Your task to perform on an android device: Search for flights from Mexico city to Boston Image 0: 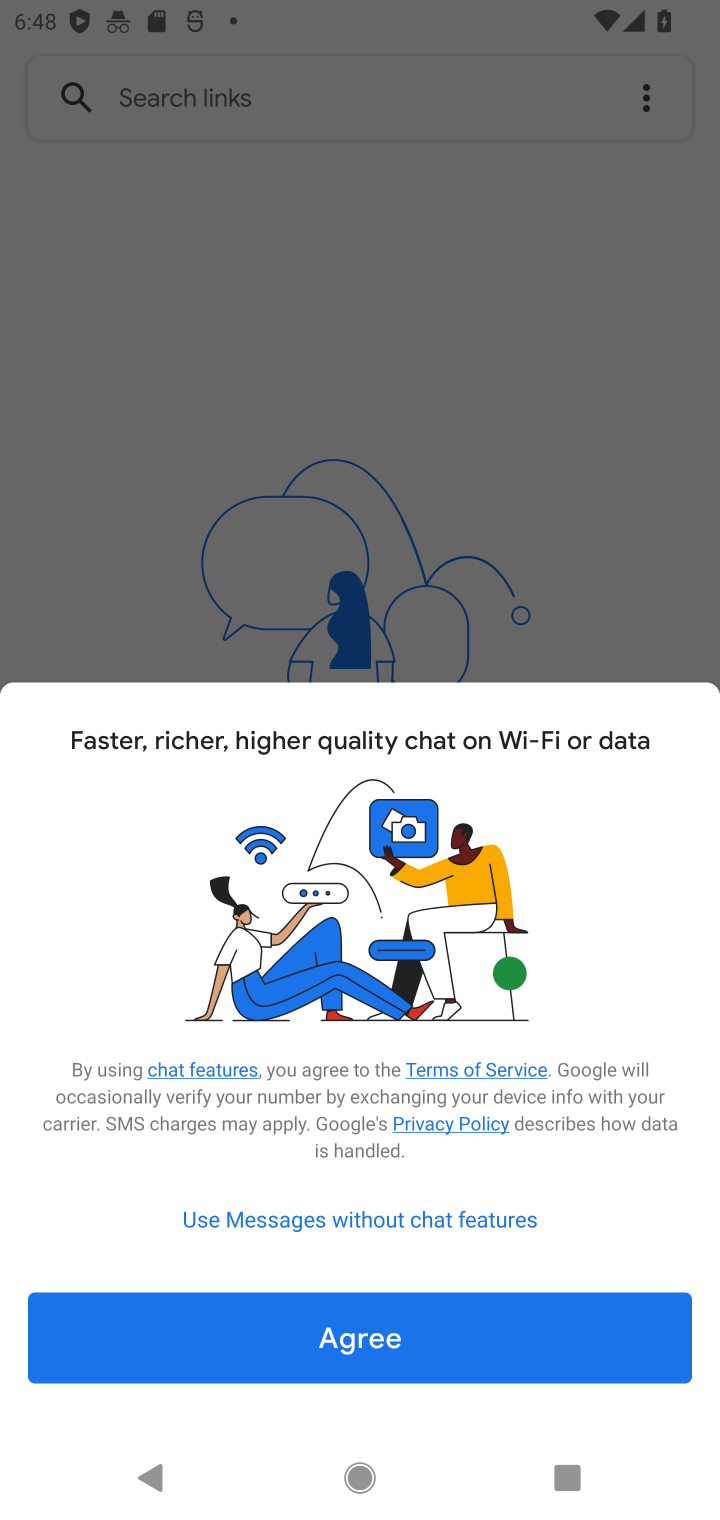
Step 0: press home button
Your task to perform on an android device: Search for flights from Mexico city to Boston Image 1: 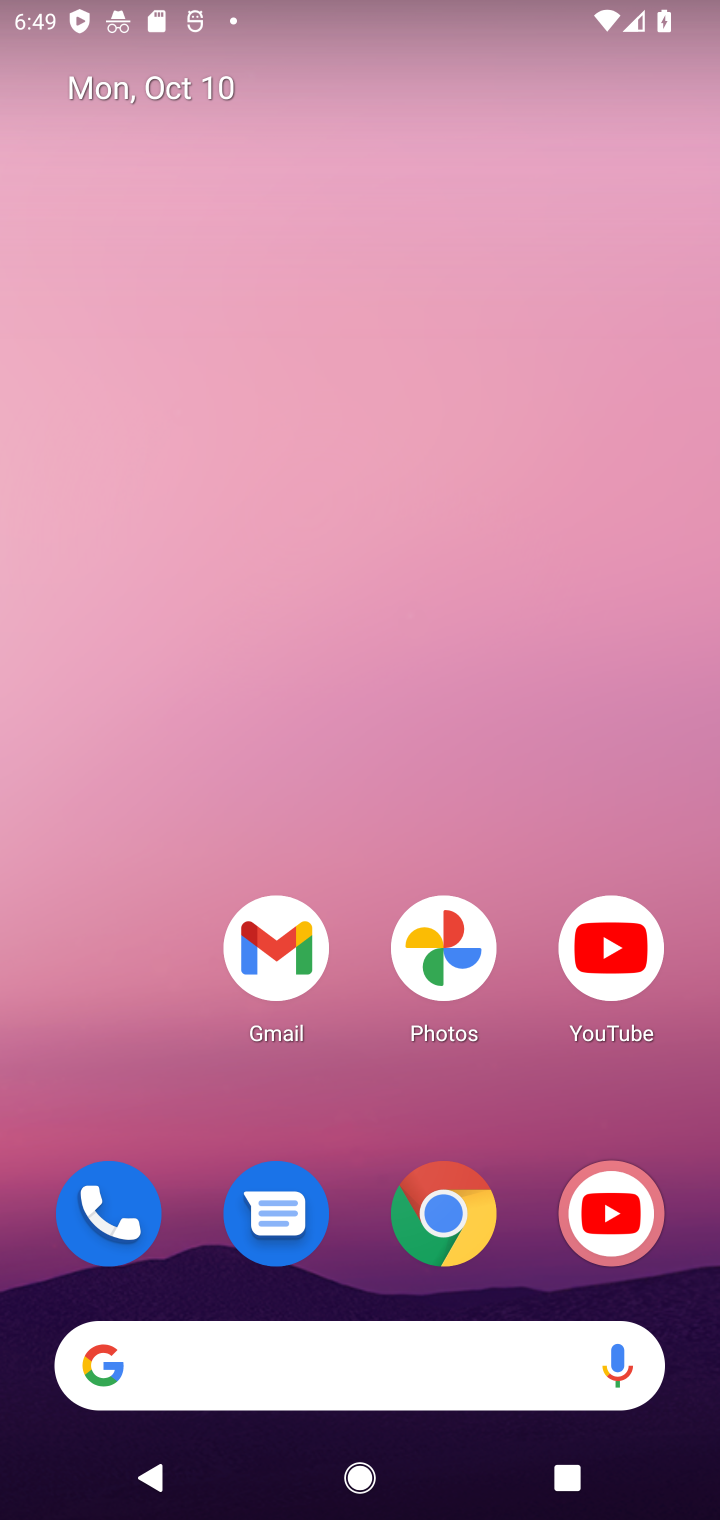
Step 1: click (179, 1385)
Your task to perform on an android device: Search for flights from Mexico city to Boston Image 2: 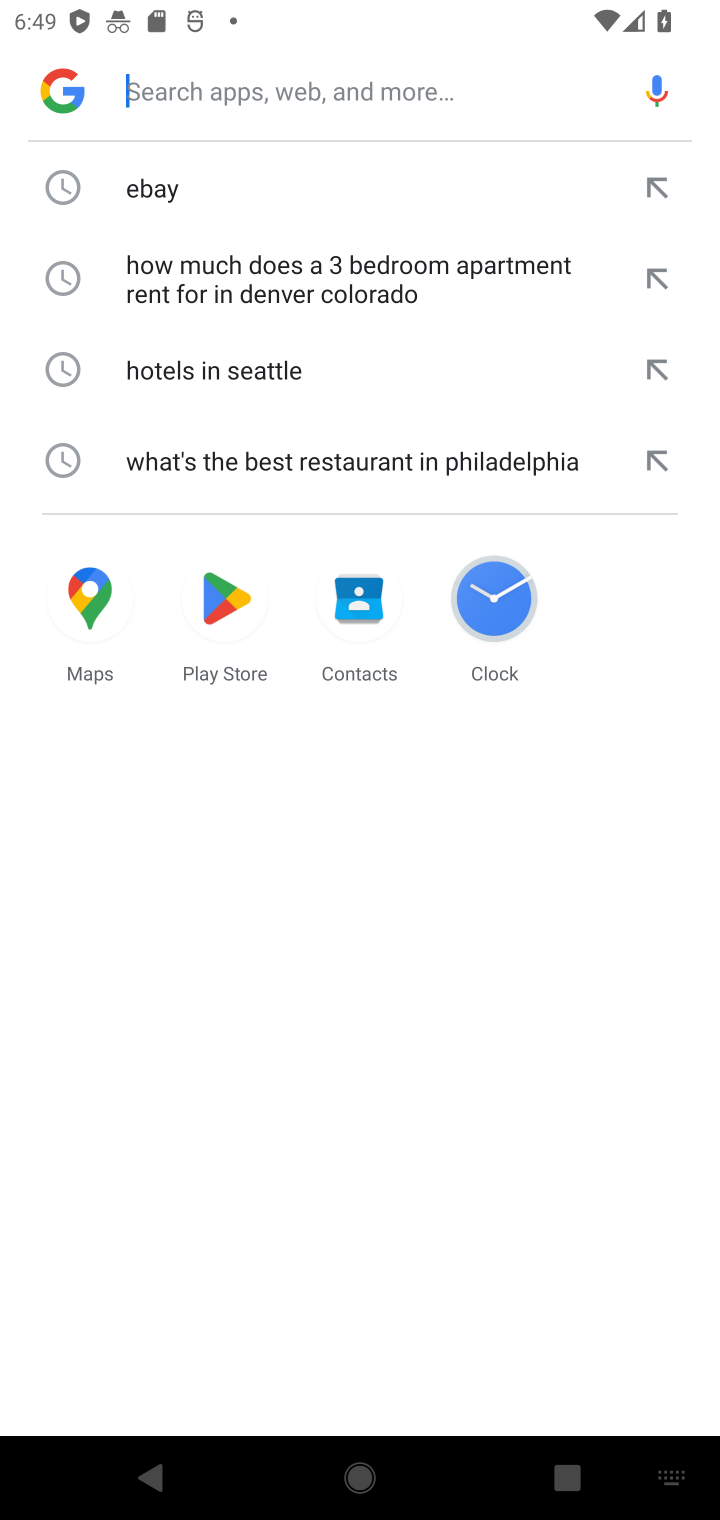
Step 2: click (167, 70)
Your task to perform on an android device: Search for flights from Mexico city to Boston Image 3: 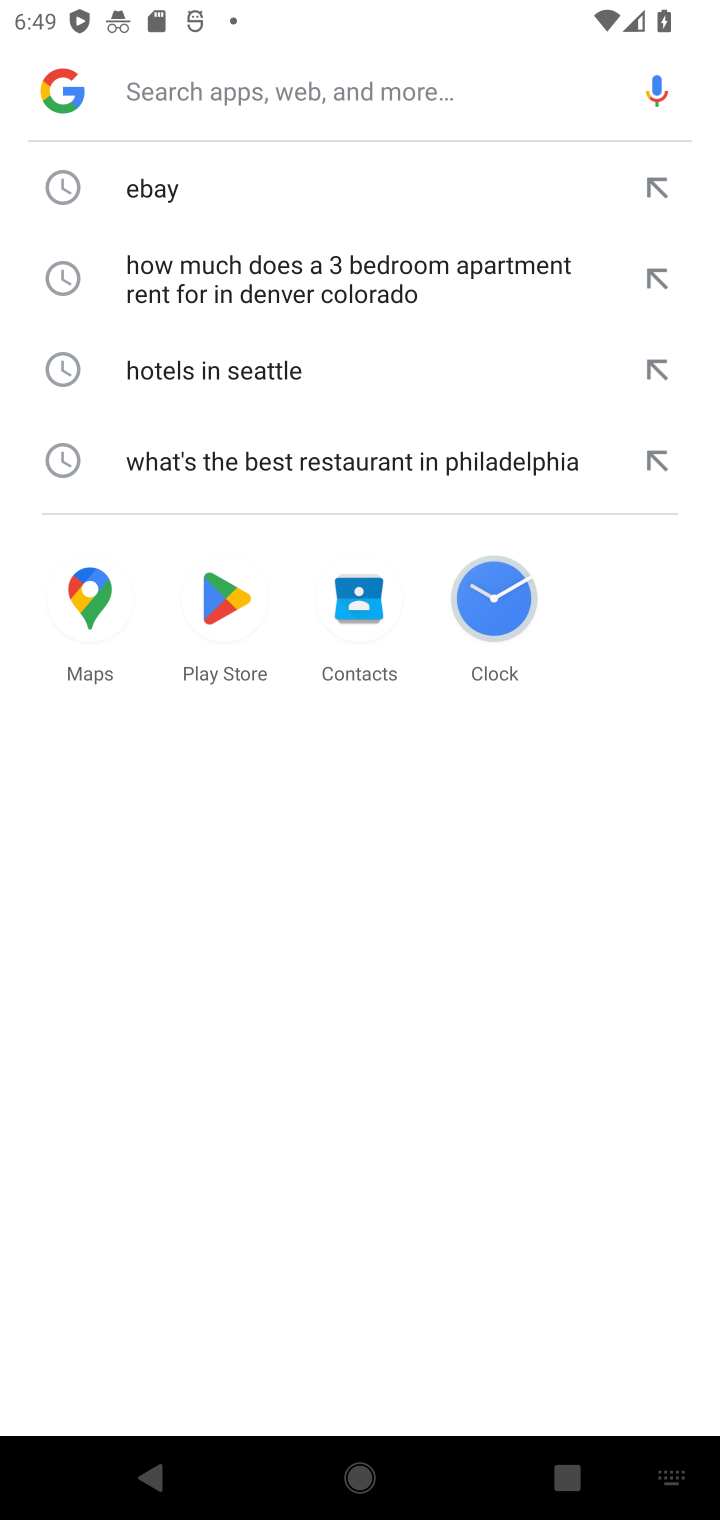
Step 3: type "flights from Mexico city to Boston"
Your task to perform on an android device: Search for flights from Mexico city to Boston Image 4: 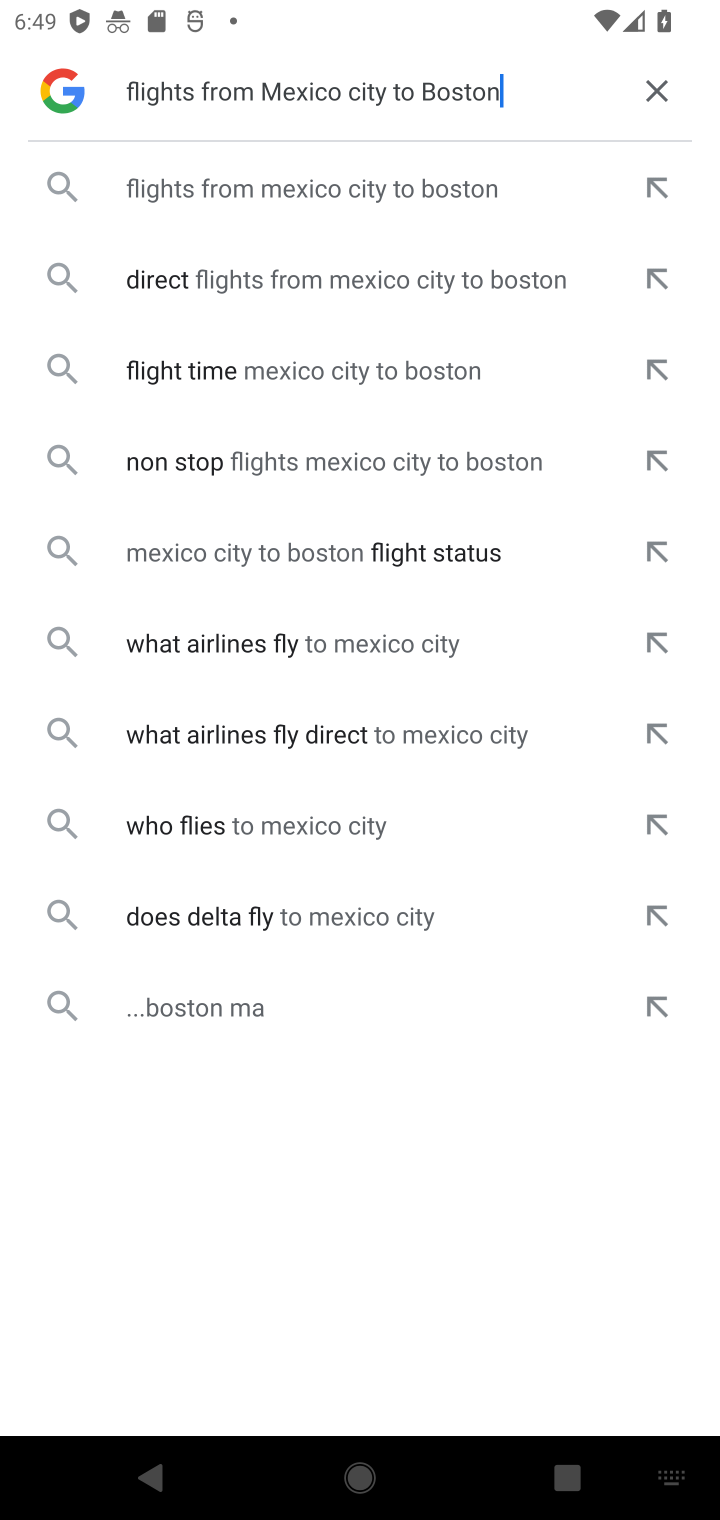
Step 4: click (318, 187)
Your task to perform on an android device: Search for flights from Mexico city to Boston Image 5: 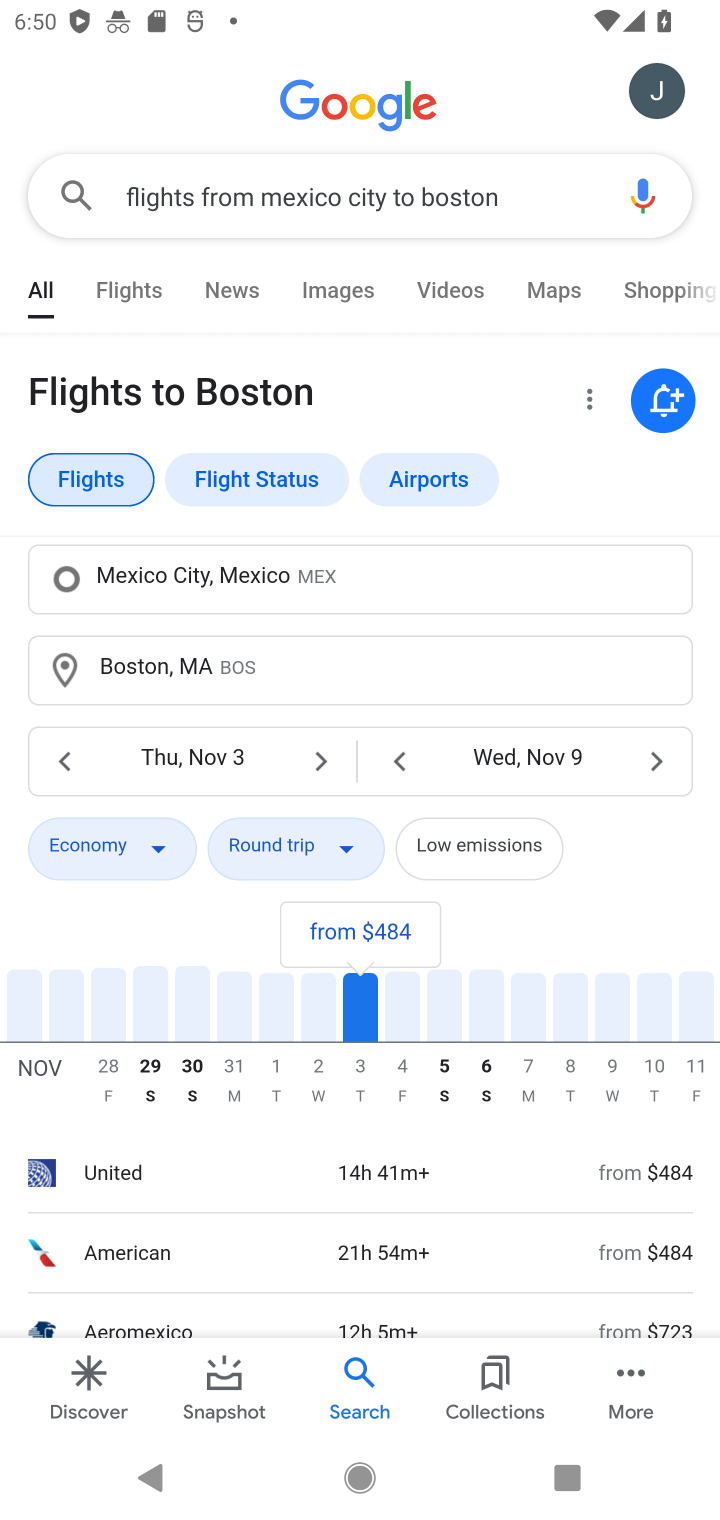
Step 5: task complete